Your task to perform on an android device: Go to Android settings Image 0: 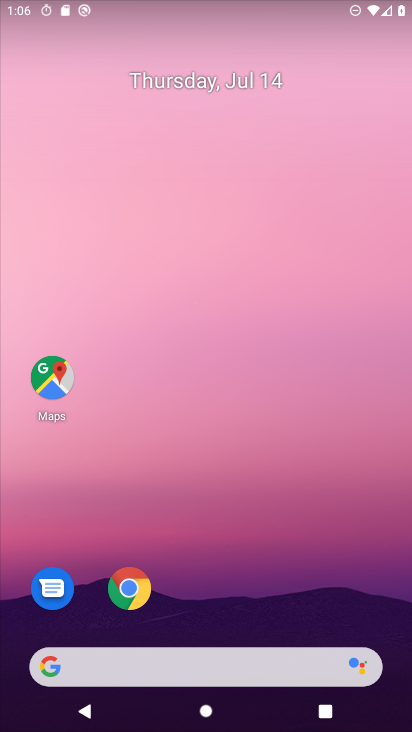
Step 0: drag from (168, 657) to (322, 270)
Your task to perform on an android device: Go to Android settings Image 1: 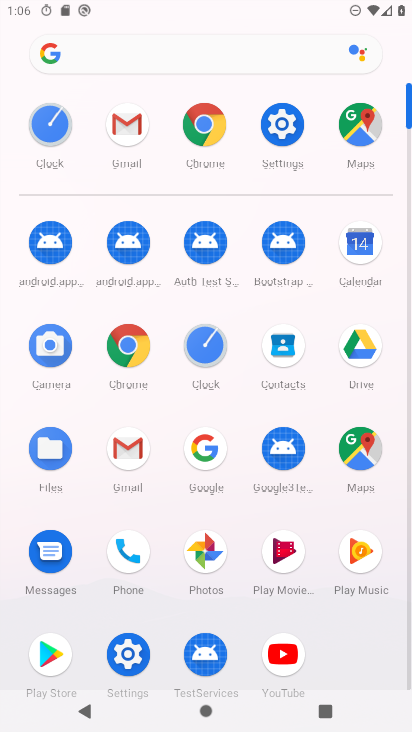
Step 1: click (276, 129)
Your task to perform on an android device: Go to Android settings Image 2: 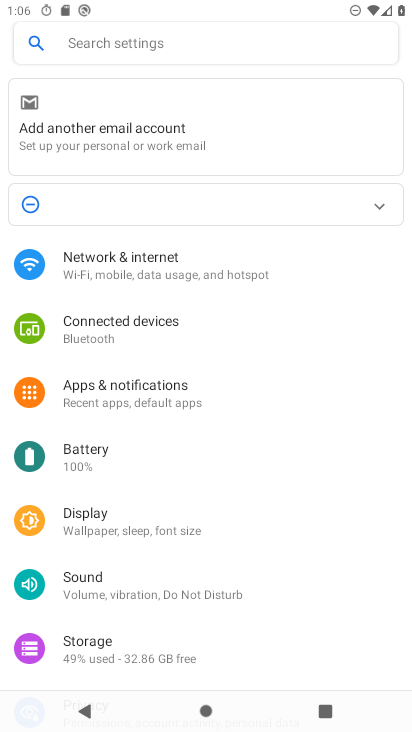
Step 2: task complete